Your task to perform on an android device: toggle show notifications on the lock screen Image 0: 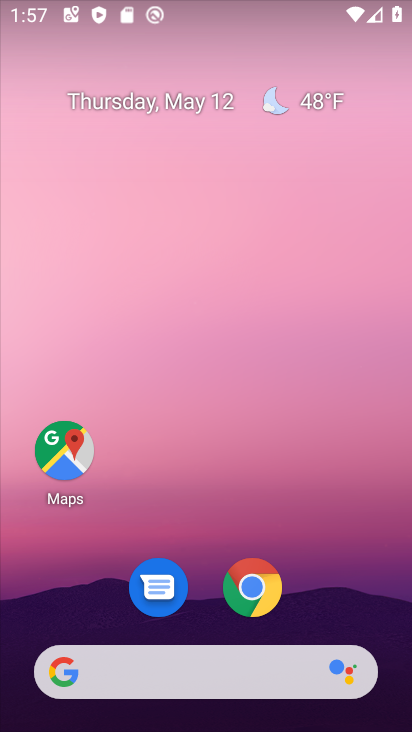
Step 0: drag from (213, 617) to (230, 152)
Your task to perform on an android device: toggle show notifications on the lock screen Image 1: 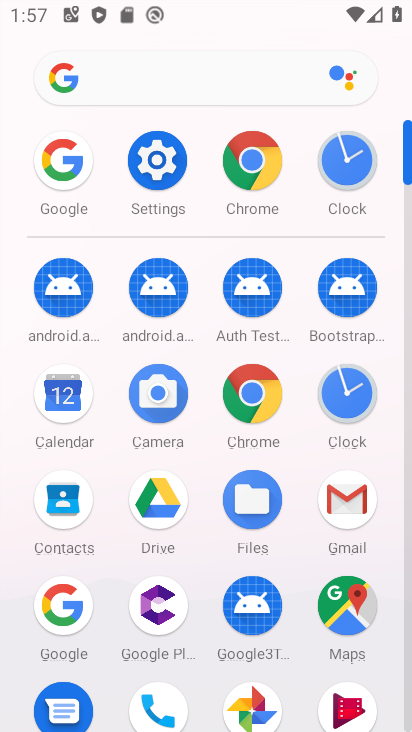
Step 1: click (164, 186)
Your task to perform on an android device: toggle show notifications on the lock screen Image 2: 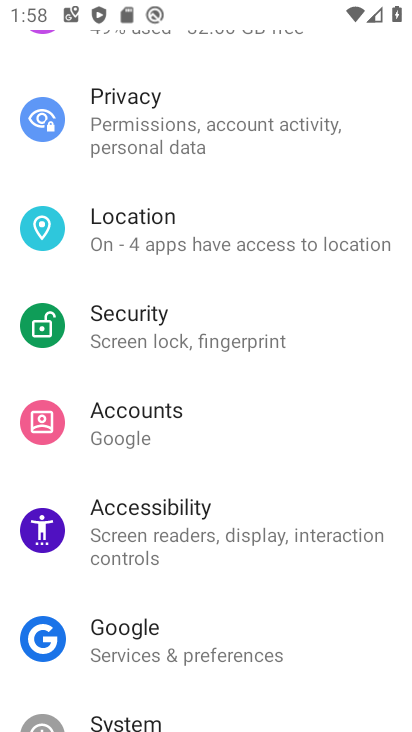
Step 2: drag from (175, 294) to (191, 571)
Your task to perform on an android device: toggle show notifications on the lock screen Image 3: 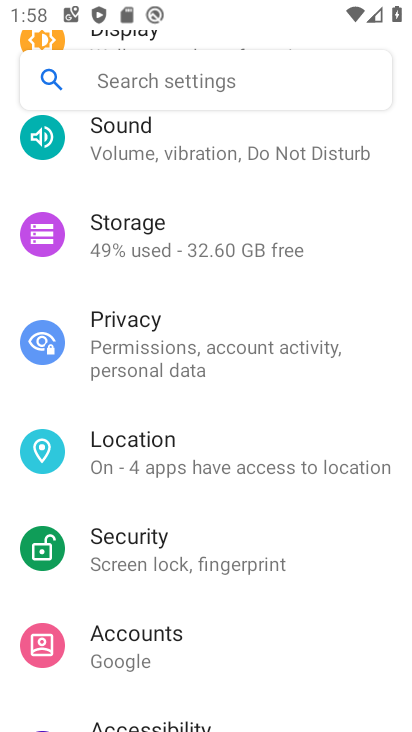
Step 3: drag from (231, 313) to (198, 601)
Your task to perform on an android device: toggle show notifications on the lock screen Image 4: 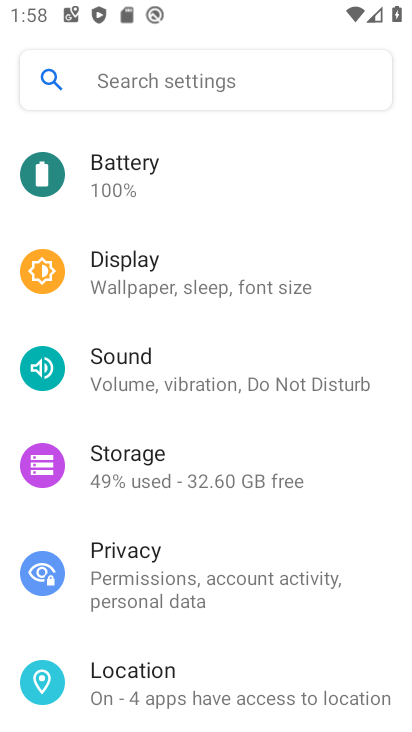
Step 4: drag from (221, 419) to (199, 549)
Your task to perform on an android device: toggle show notifications on the lock screen Image 5: 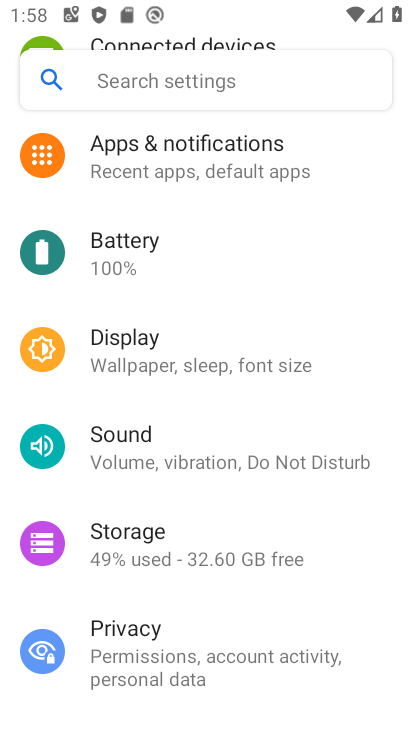
Step 5: click (249, 170)
Your task to perform on an android device: toggle show notifications on the lock screen Image 6: 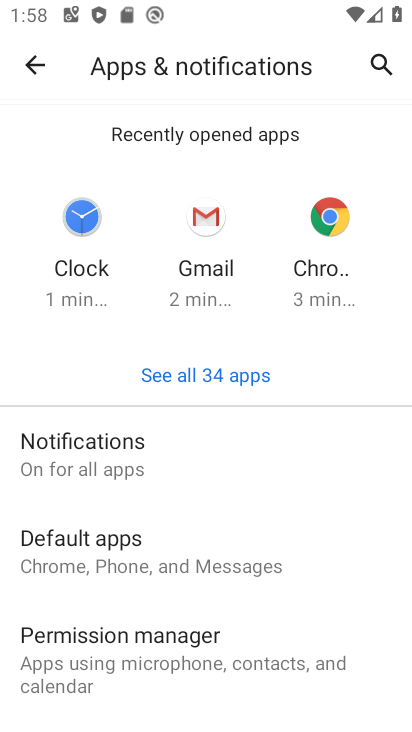
Step 6: click (181, 455)
Your task to perform on an android device: toggle show notifications on the lock screen Image 7: 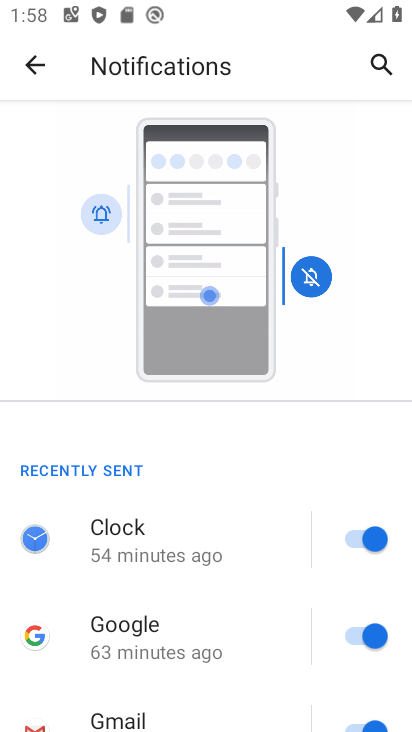
Step 7: drag from (172, 559) to (157, 322)
Your task to perform on an android device: toggle show notifications on the lock screen Image 8: 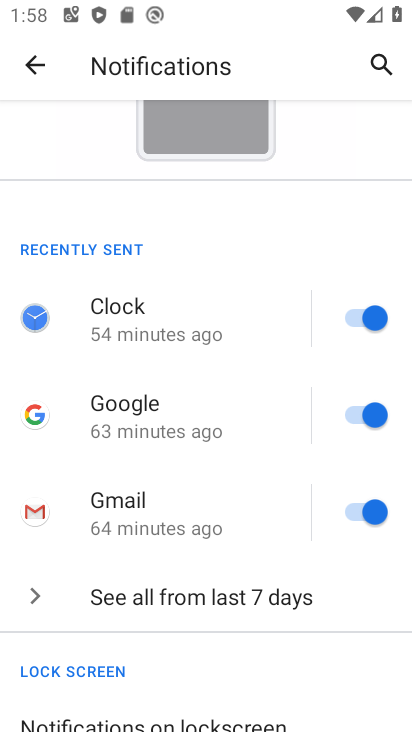
Step 8: drag from (146, 555) to (176, 332)
Your task to perform on an android device: toggle show notifications on the lock screen Image 9: 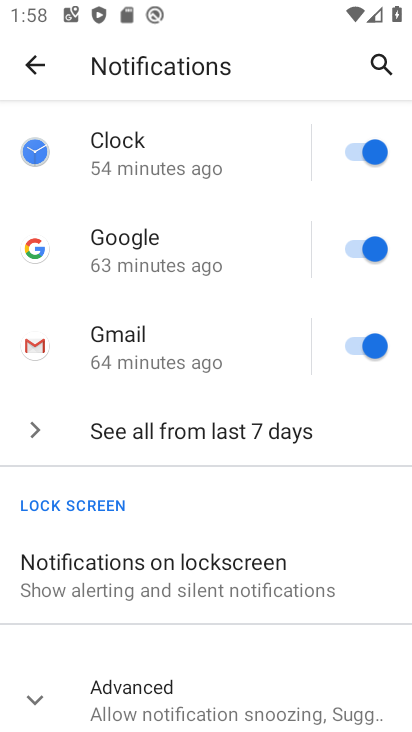
Step 9: drag from (150, 564) to (150, 386)
Your task to perform on an android device: toggle show notifications on the lock screen Image 10: 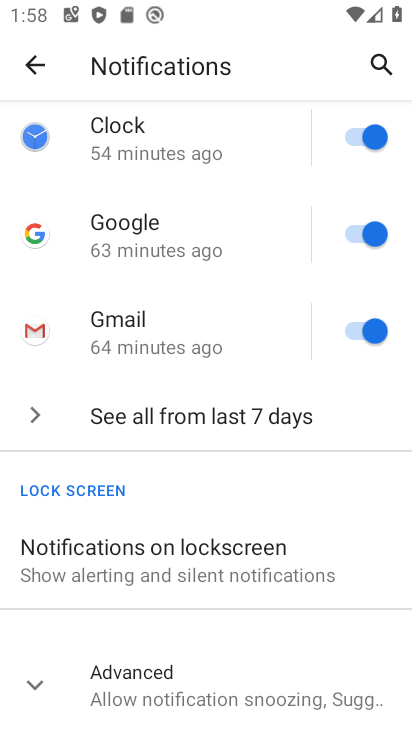
Step 10: drag from (130, 608) to (144, 430)
Your task to perform on an android device: toggle show notifications on the lock screen Image 11: 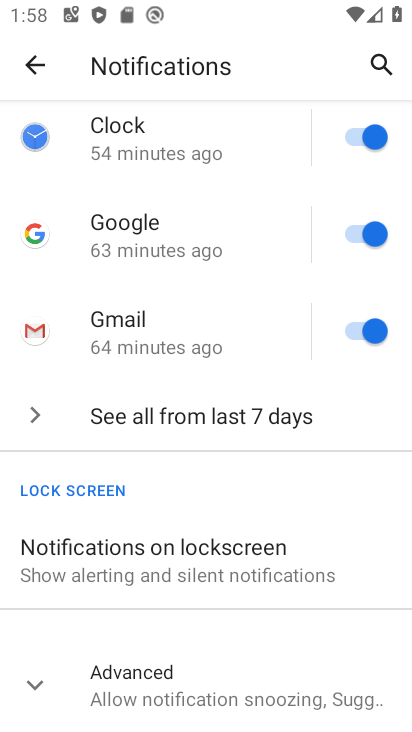
Step 11: click (122, 563)
Your task to perform on an android device: toggle show notifications on the lock screen Image 12: 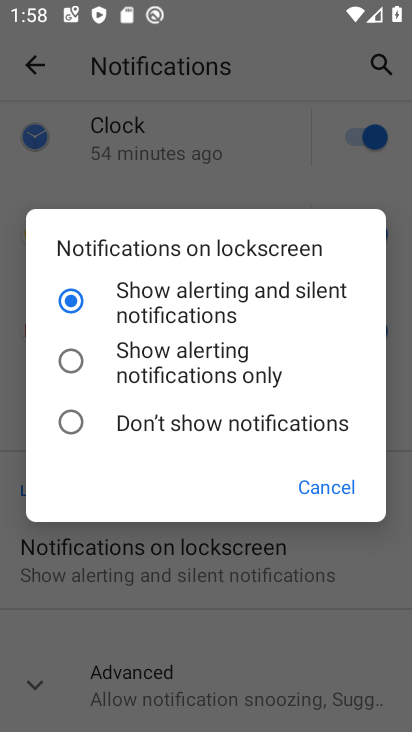
Step 12: click (169, 429)
Your task to perform on an android device: toggle show notifications on the lock screen Image 13: 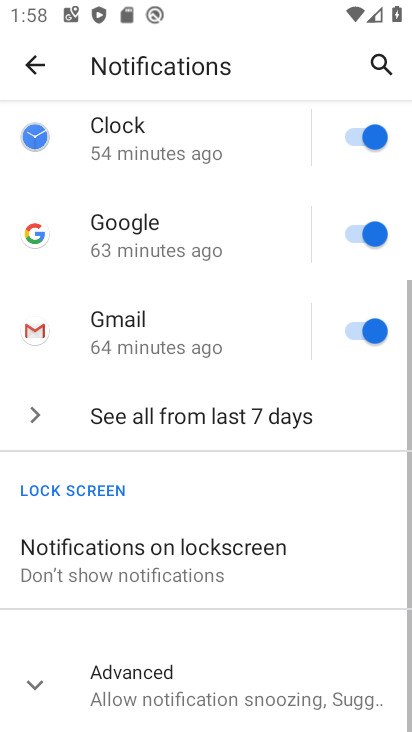
Step 13: task complete